Your task to perform on an android device: turn on wifi Image 0: 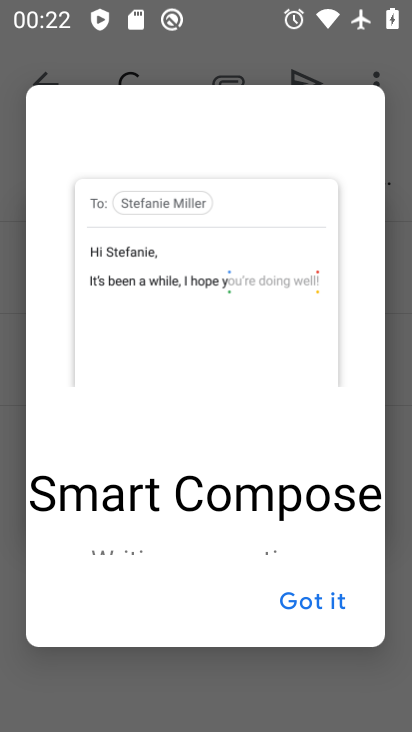
Step 0: press home button
Your task to perform on an android device: turn on wifi Image 1: 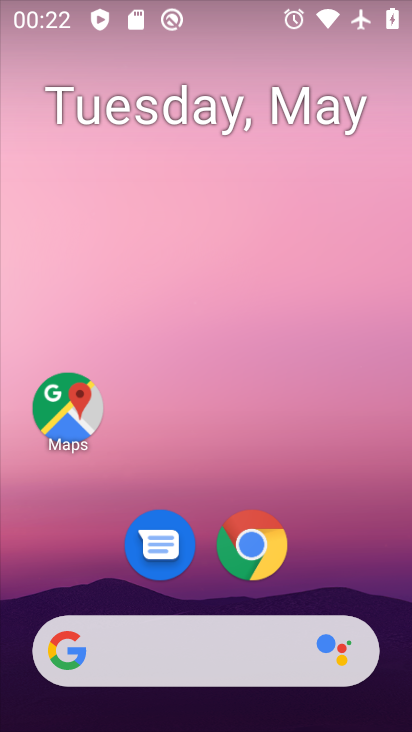
Step 1: drag from (307, 583) to (411, 79)
Your task to perform on an android device: turn on wifi Image 2: 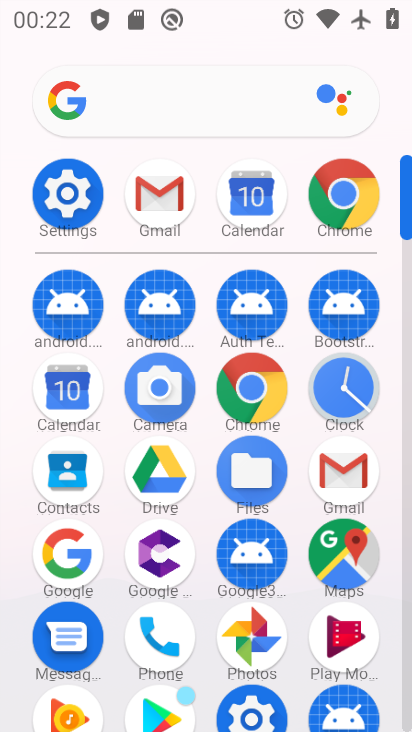
Step 2: click (88, 197)
Your task to perform on an android device: turn on wifi Image 3: 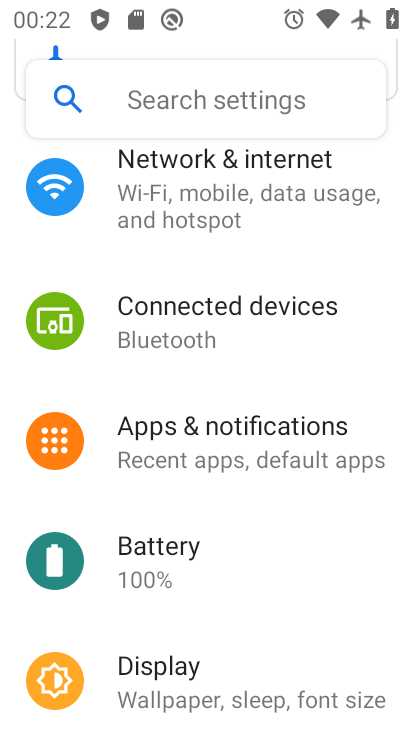
Step 3: click (203, 223)
Your task to perform on an android device: turn on wifi Image 4: 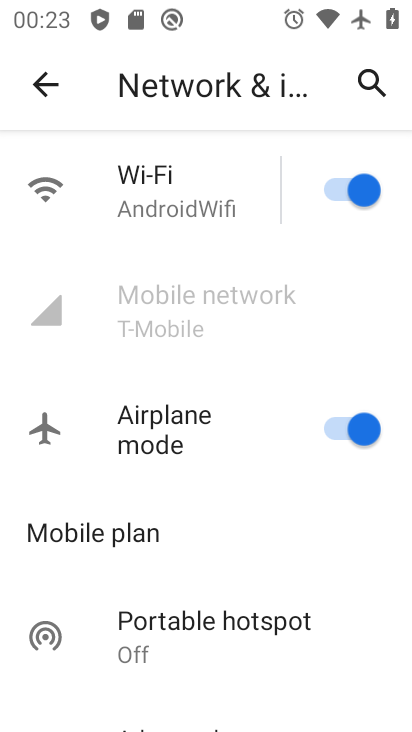
Step 4: task complete